Your task to perform on an android device: set default search engine in the chrome app Image 0: 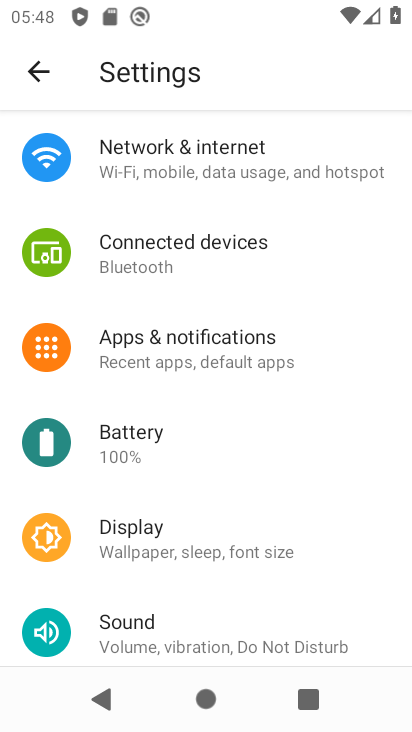
Step 0: press home button
Your task to perform on an android device: set default search engine in the chrome app Image 1: 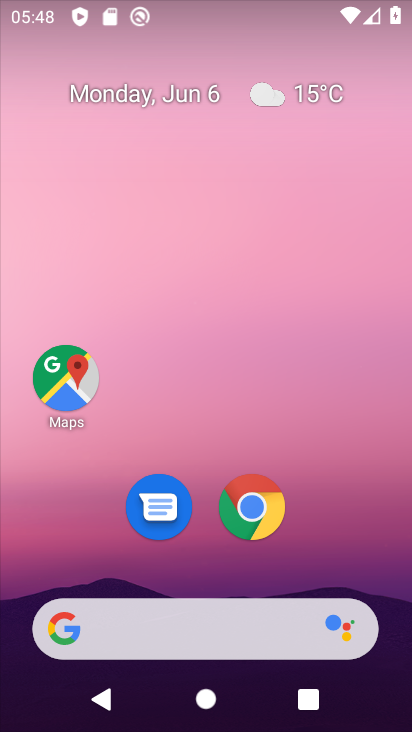
Step 1: drag from (246, 567) to (247, 14)
Your task to perform on an android device: set default search engine in the chrome app Image 2: 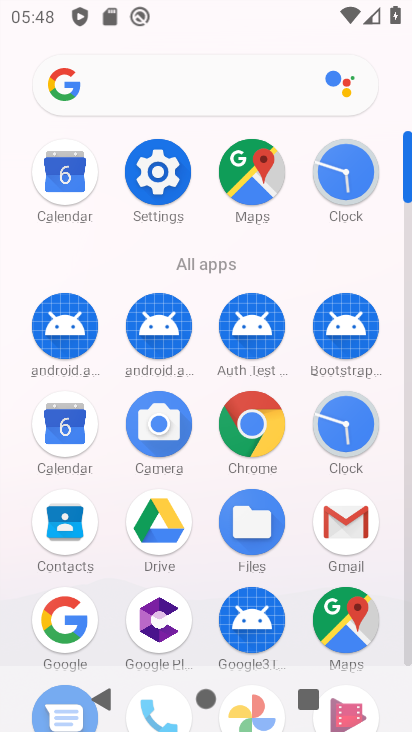
Step 2: click (236, 449)
Your task to perform on an android device: set default search engine in the chrome app Image 3: 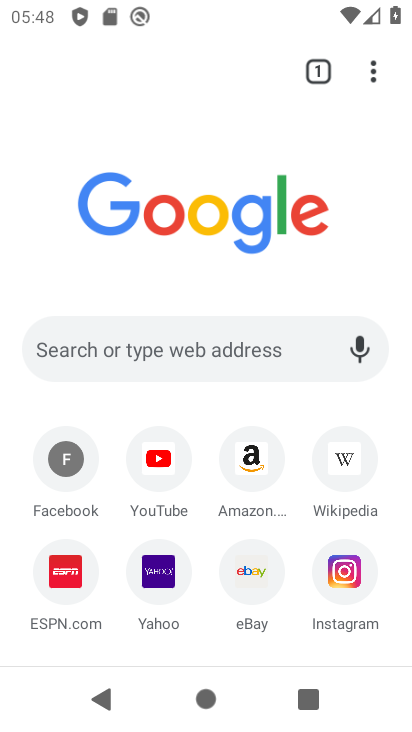
Step 3: click (370, 72)
Your task to perform on an android device: set default search engine in the chrome app Image 4: 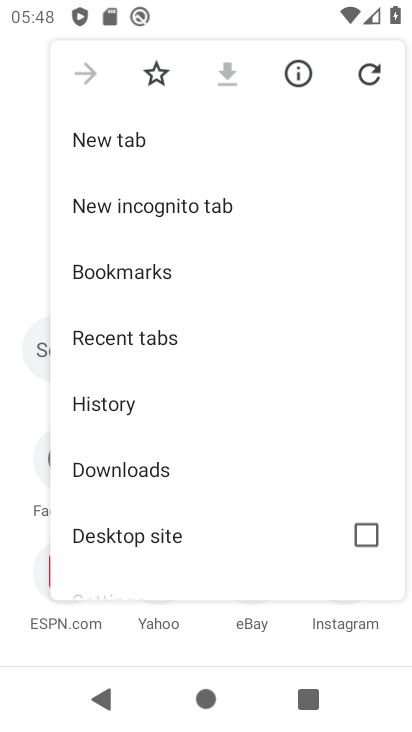
Step 4: drag from (181, 506) to (155, 203)
Your task to perform on an android device: set default search engine in the chrome app Image 5: 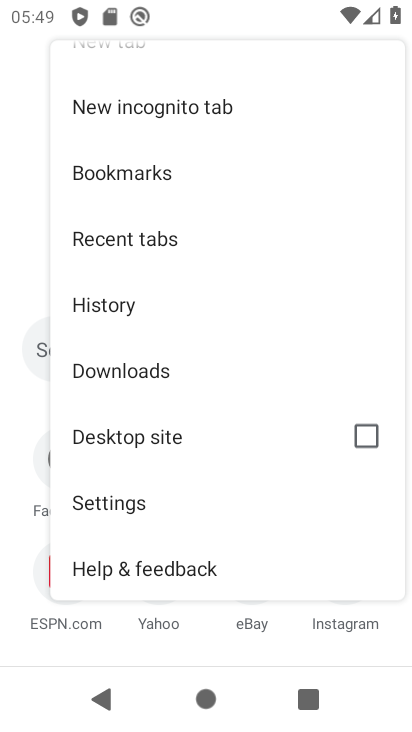
Step 5: click (110, 508)
Your task to perform on an android device: set default search engine in the chrome app Image 6: 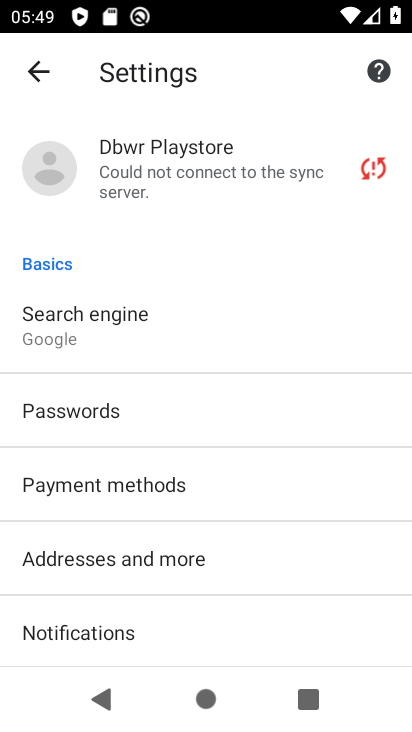
Step 6: click (51, 326)
Your task to perform on an android device: set default search engine in the chrome app Image 7: 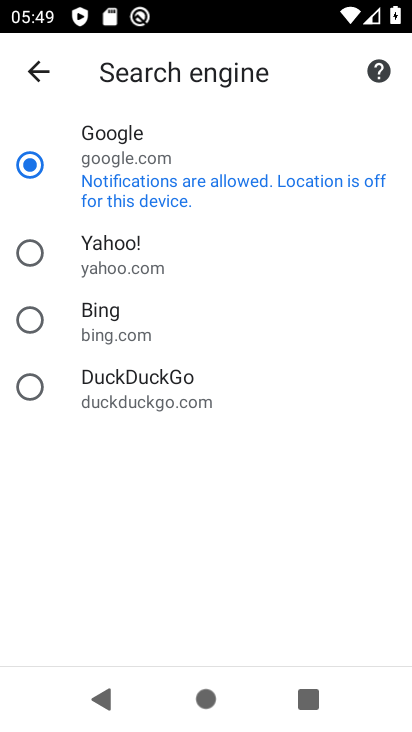
Step 7: click (32, 266)
Your task to perform on an android device: set default search engine in the chrome app Image 8: 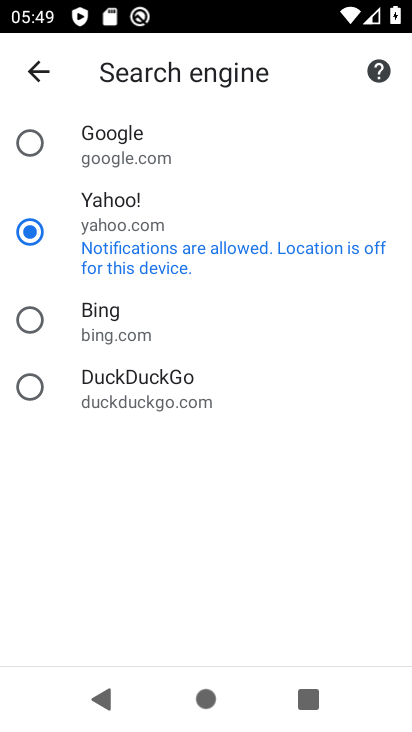
Step 8: task complete